Your task to perform on an android device: change the clock display to show seconds Image 0: 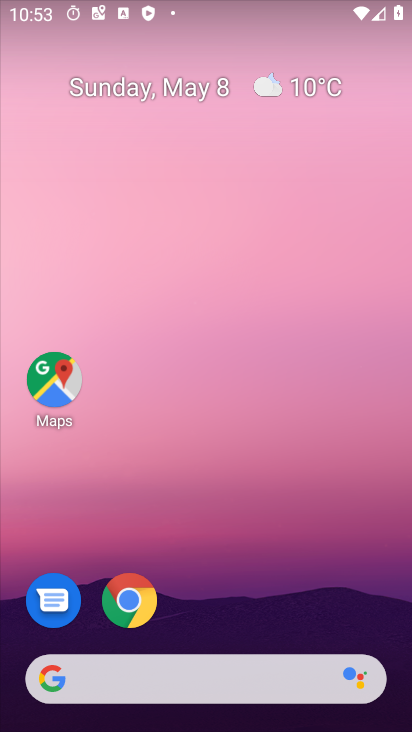
Step 0: drag from (226, 617) to (251, 23)
Your task to perform on an android device: change the clock display to show seconds Image 1: 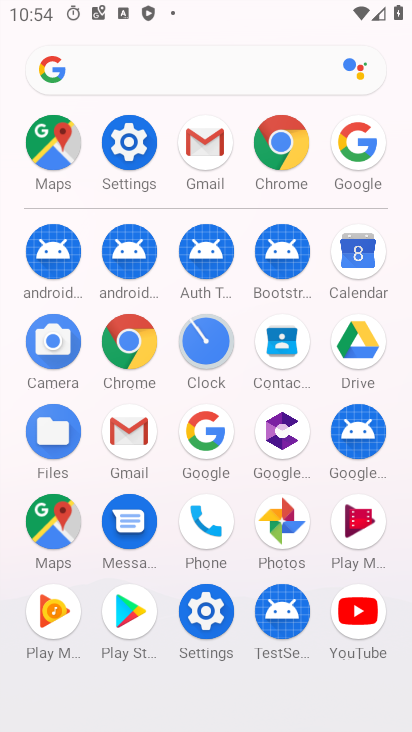
Step 1: click (204, 368)
Your task to perform on an android device: change the clock display to show seconds Image 2: 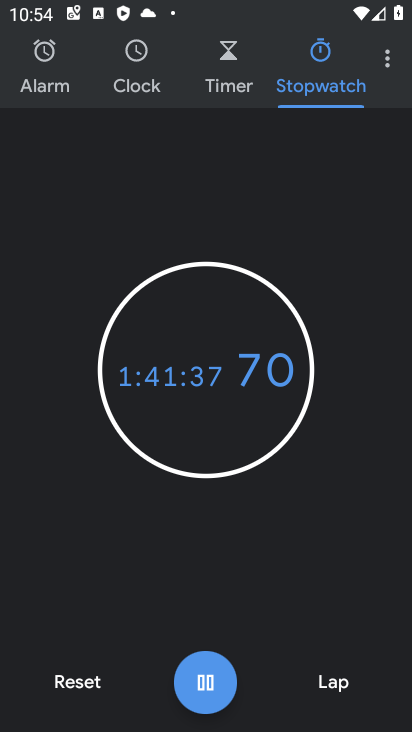
Step 2: click (395, 71)
Your task to perform on an android device: change the clock display to show seconds Image 3: 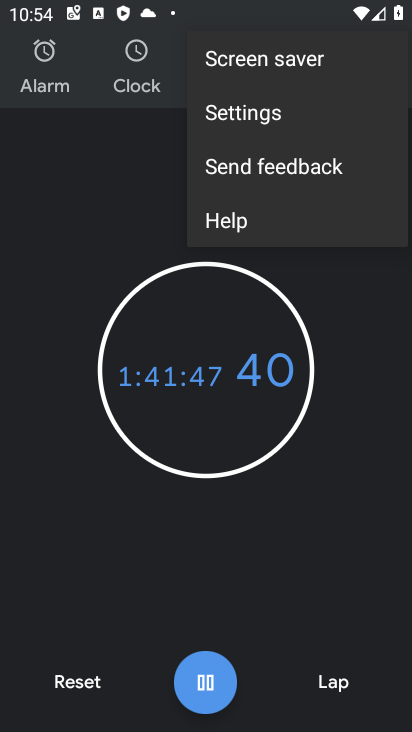
Step 3: click (226, 111)
Your task to perform on an android device: change the clock display to show seconds Image 4: 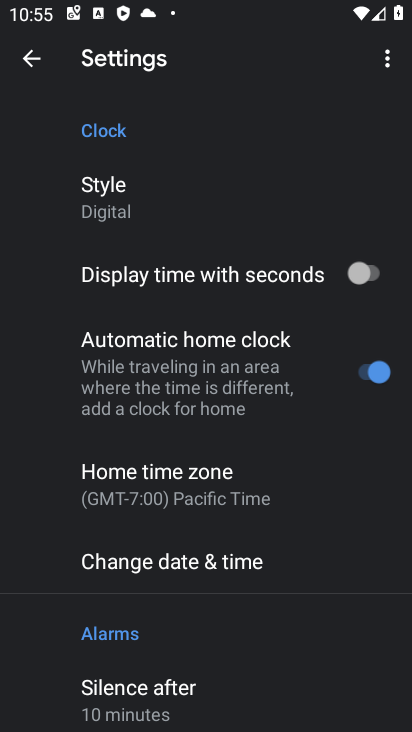
Step 4: click (373, 272)
Your task to perform on an android device: change the clock display to show seconds Image 5: 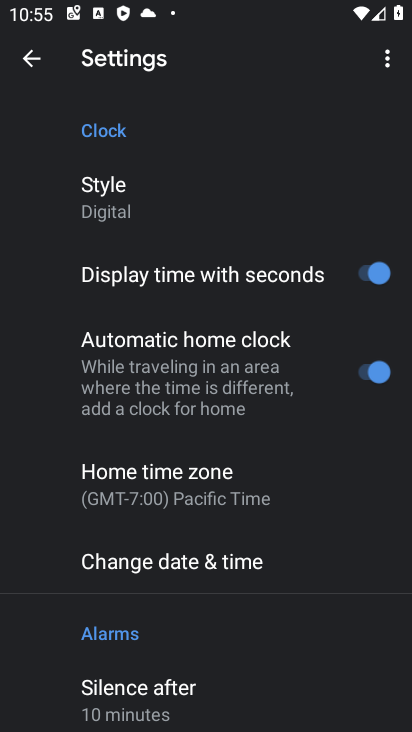
Step 5: task complete